Your task to perform on an android device: allow notifications from all sites in the chrome app Image 0: 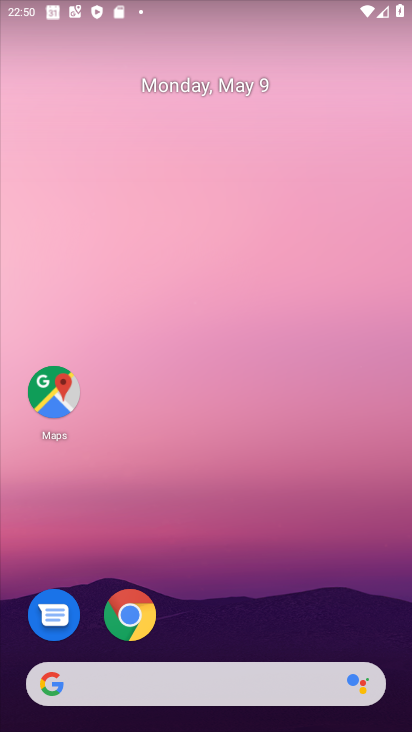
Step 0: click (141, 618)
Your task to perform on an android device: allow notifications from all sites in the chrome app Image 1: 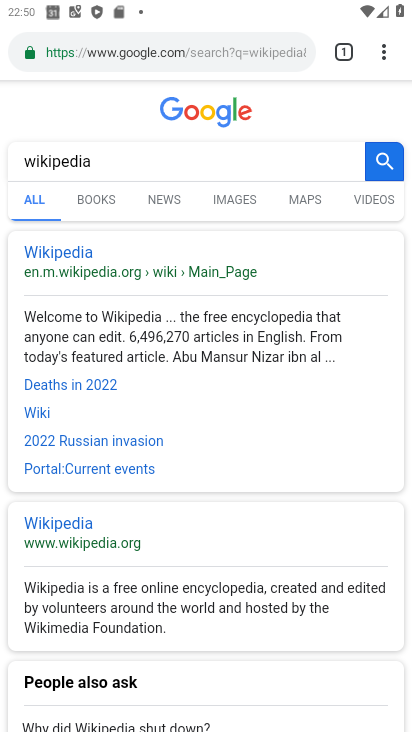
Step 1: click (385, 51)
Your task to perform on an android device: allow notifications from all sites in the chrome app Image 2: 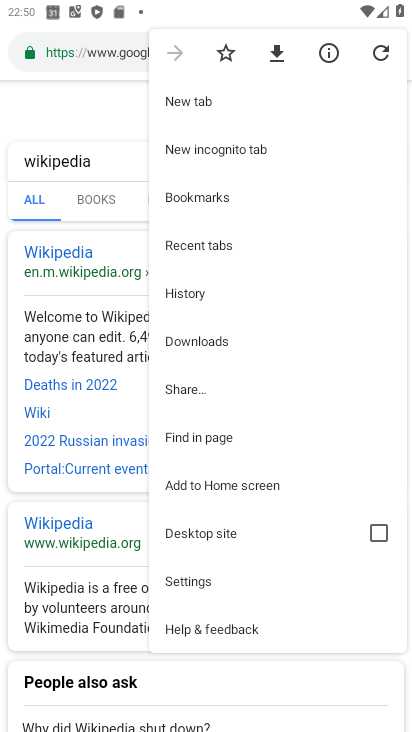
Step 2: click (216, 586)
Your task to perform on an android device: allow notifications from all sites in the chrome app Image 3: 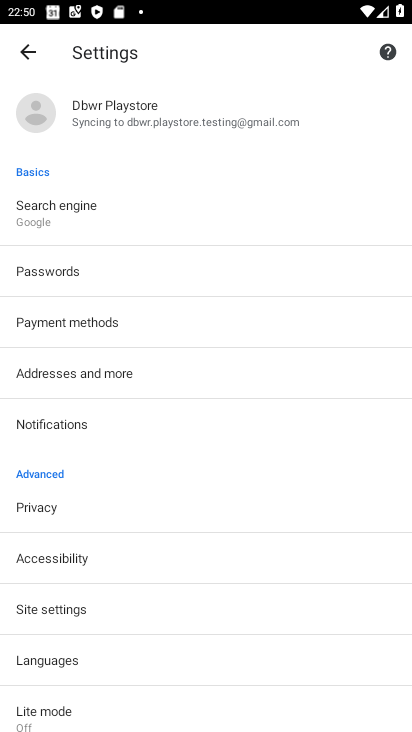
Step 3: click (106, 424)
Your task to perform on an android device: allow notifications from all sites in the chrome app Image 4: 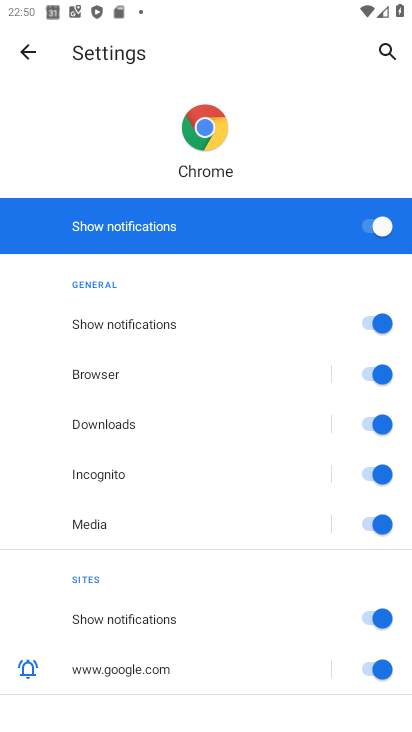
Step 4: task complete